Your task to perform on an android device: Open settings on Google Maps Image 0: 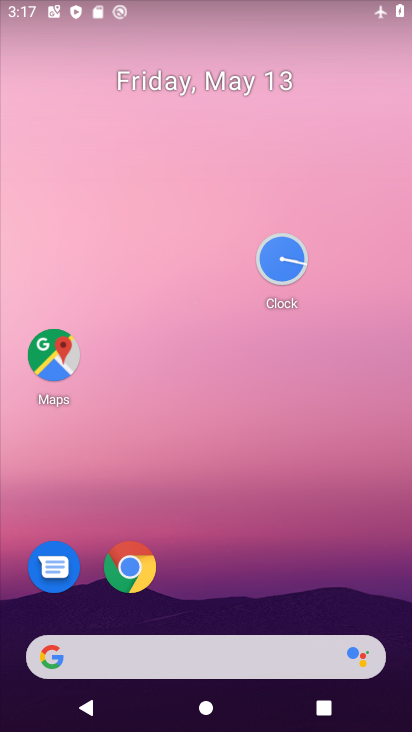
Step 0: drag from (235, 547) to (163, 287)
Your task to perform on an android device: Open settings on Google Maps Image 1: 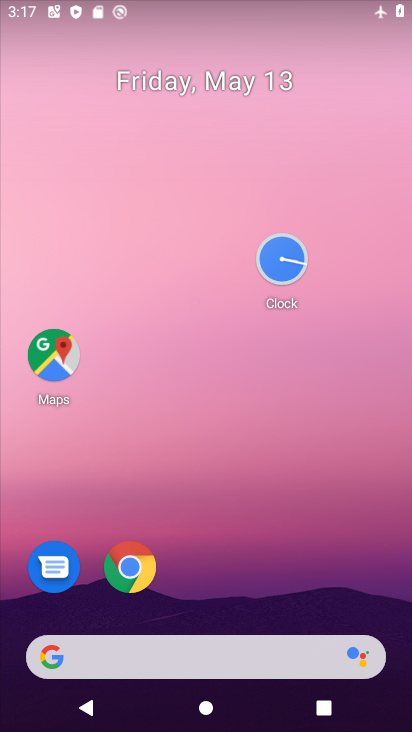
Step 1: click (51, 341)
Your task to perform on an android device: Open settings on Google Maps Image 2: 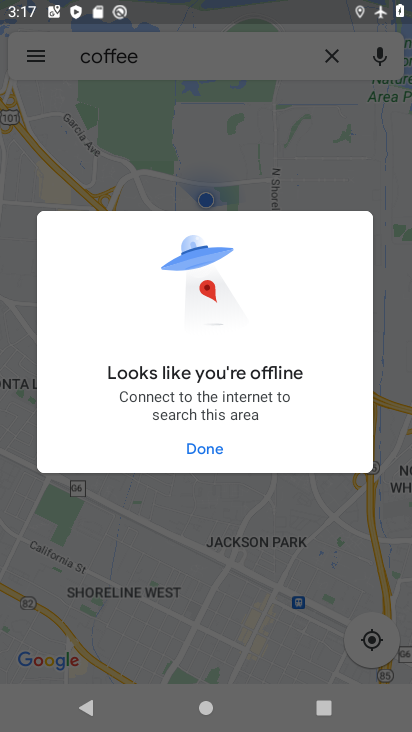
Step 2: task complete